Your task to perform on an android device: Open accessibility settings Image 0: 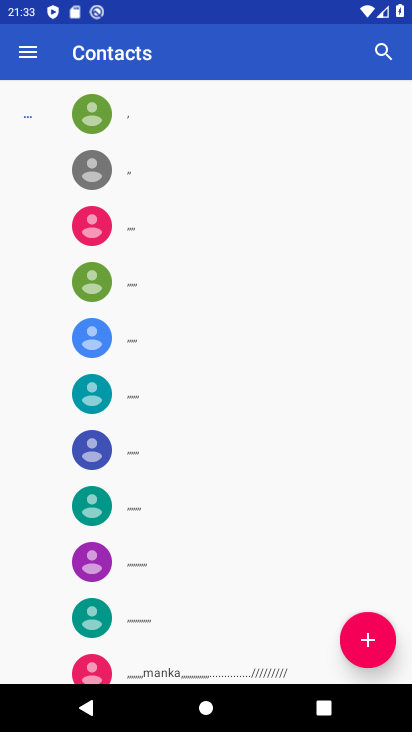
Step 0: press home button
Your task to perform on an android device: Open accessibility settings Image 1: 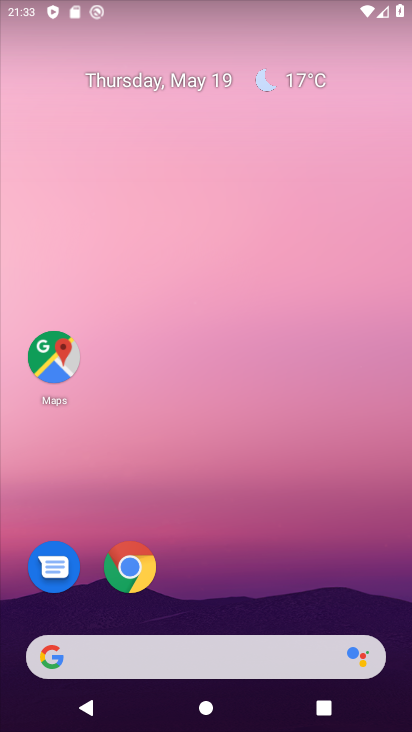
Step 1: drag from (368, 603) to (273, 16)
Your task to perform on an android device: Open accessibility settings Image 2: 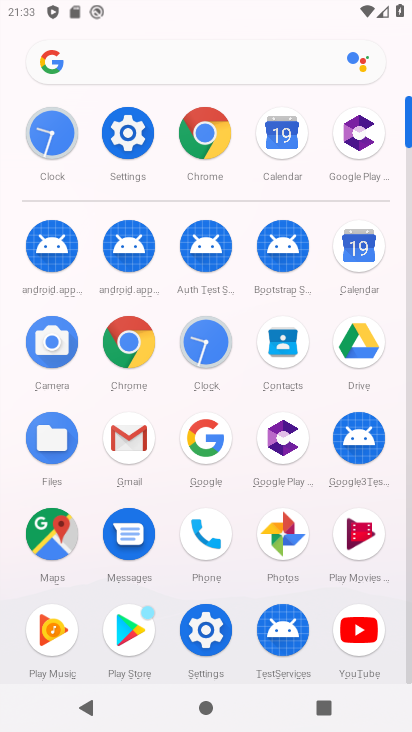
Step 2: click (205, 624)
Your task to perform on an android device: Open accessibility settings Image 3: 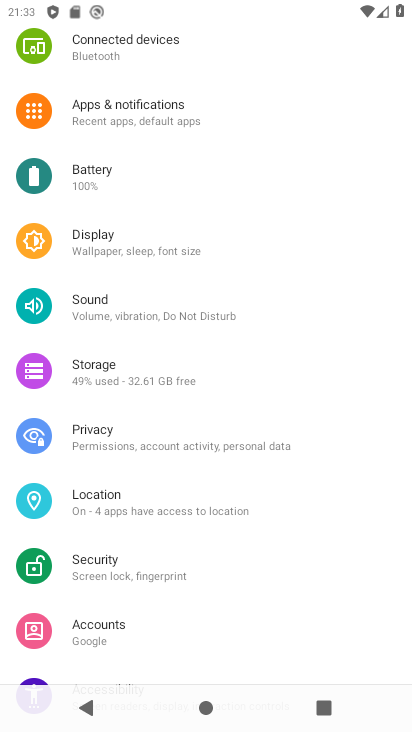
Step 3: drag from (254, 511) to (121, 70)
Your task to perform on an android device: Open accessibility settings Image 4: 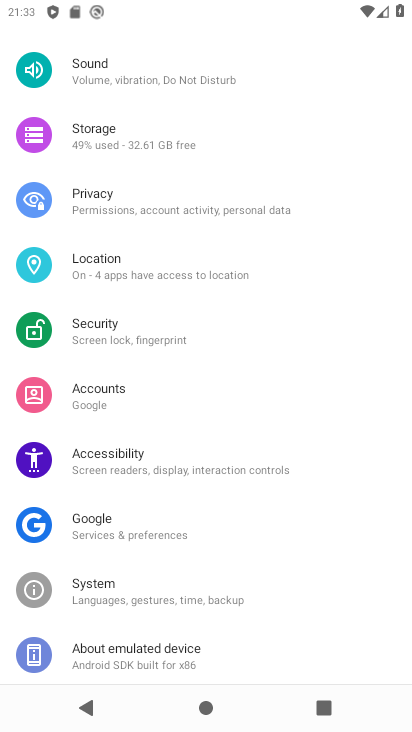
Step 4: click (132, 476)
Your task to perform on an android device: Open accessibility settings Image 5: 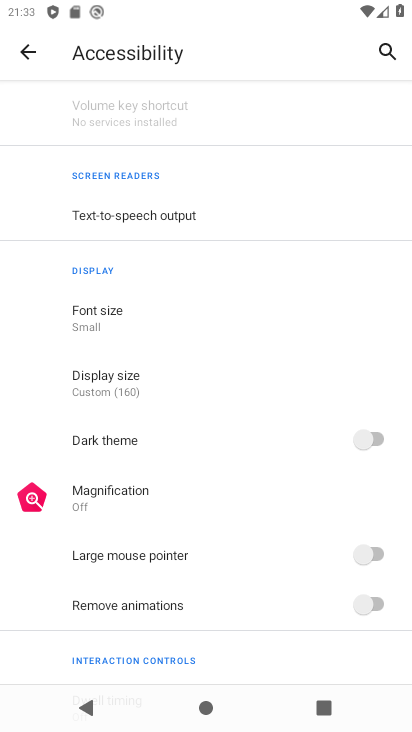
Step 5: task complete